Your task to perform on an android device: turn on airplane mode Image 0: 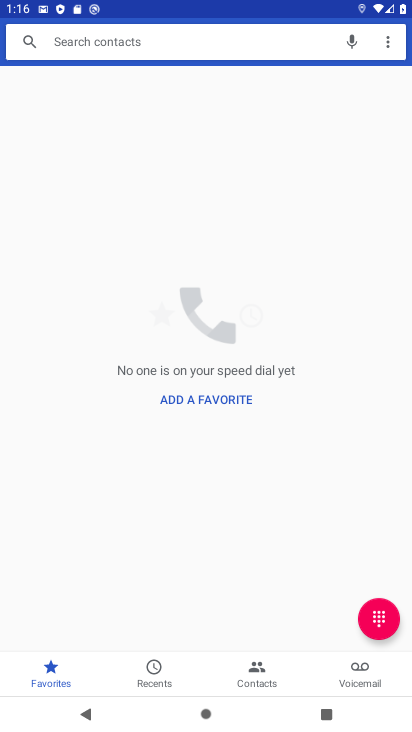
Step 0: press home button
Your task to perform on an android device: turn on airplane mode Image 1: 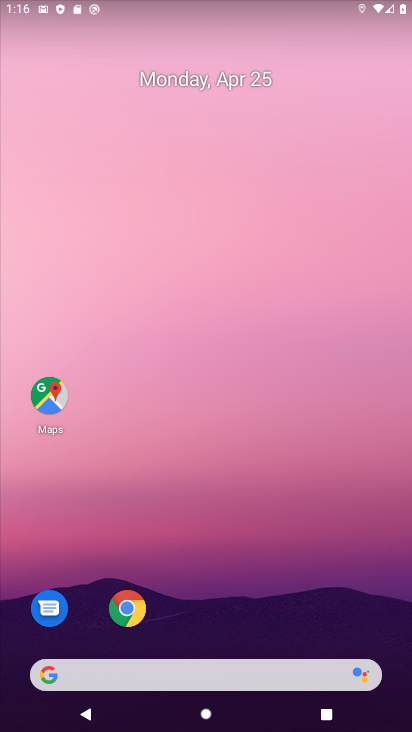
Step 1: drag from (251, 640) to (319, 5)
Your task to perform on an android device: turn on airplane mode Image 2: 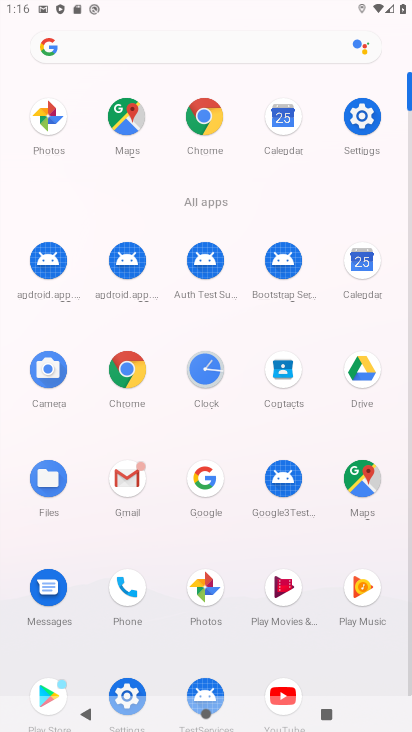
Step 2: click (368, 130)
Your task to perform on an android device: turn on airplane mode Image 3: 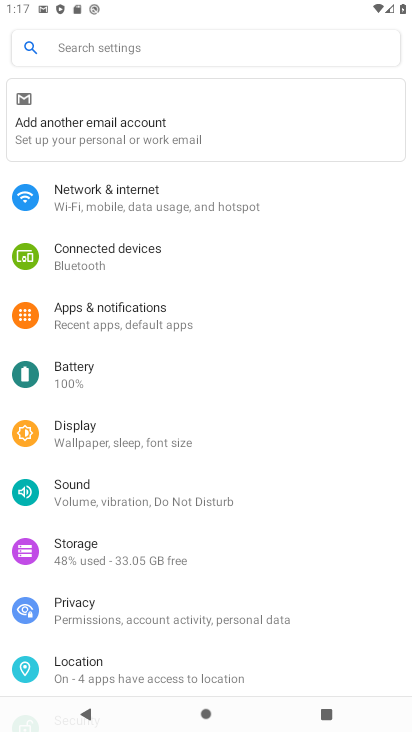
Step 3: click (243, 199)
Your task to perform on an android device: turn on airplane mode Image 4: 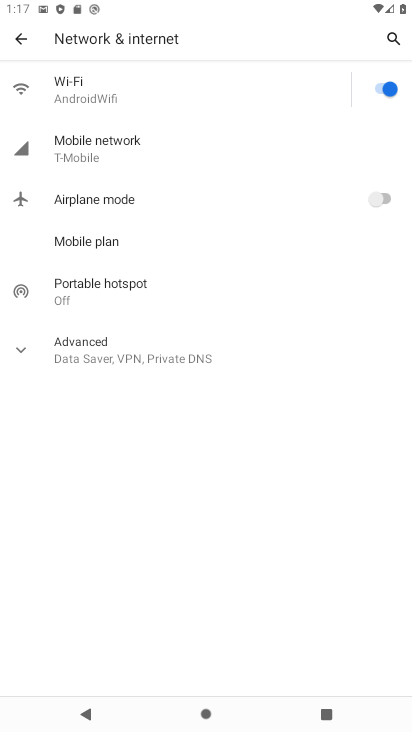
Step 4: click (378, 217)
Your task to perform on an android device: turn on airplane mode Image 5: 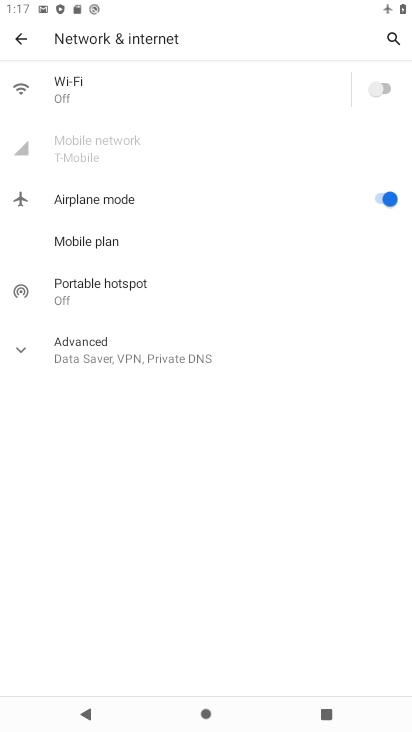
Step 5: task complete